Your task to perform on an android device: Open settings Image 0: 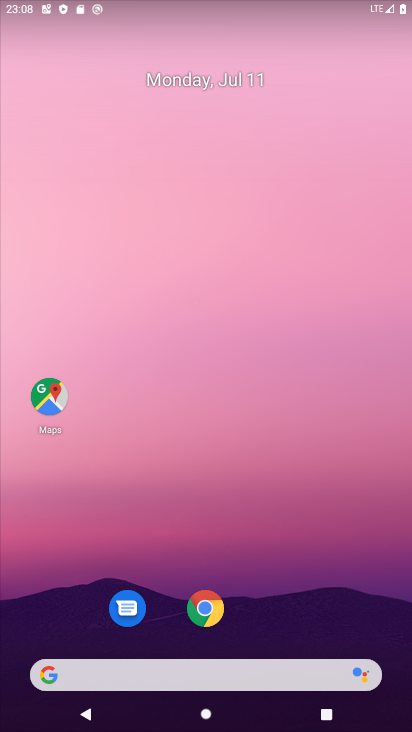
Step 0: drag from (78, 512) to (241, 54)
Your task to perform on an android device: Open settings Image 1: 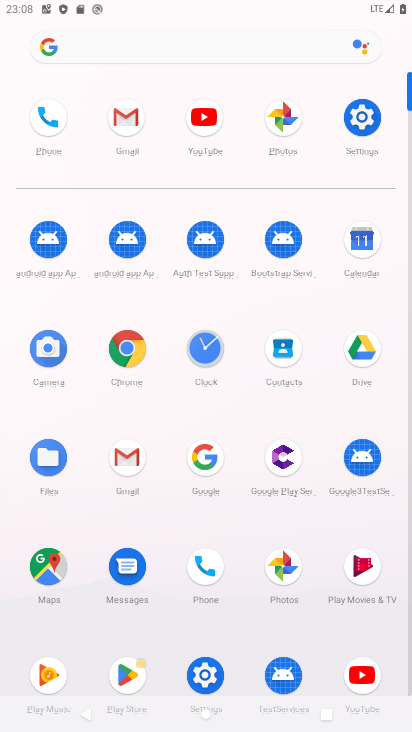
Step 1: click (211, 669)
Your task to perform on an android device: Open settings Image 2: 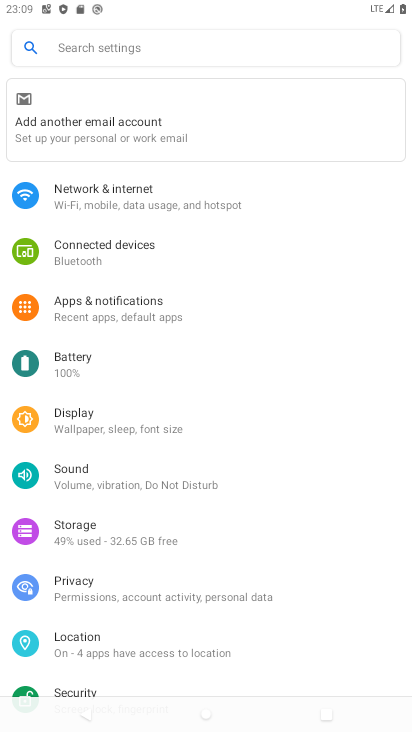
Step 2: click (127, 197)
Your task to perform on an android device: Open settings Image 3: 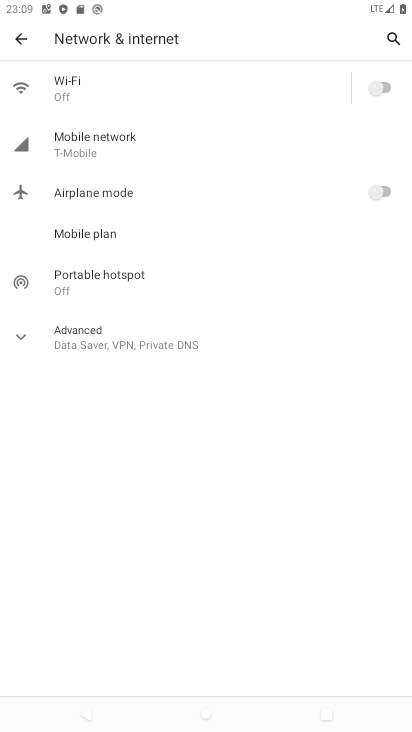
Step 3: task complete